Your task to perform on an android device: turn on wifi Image 0: 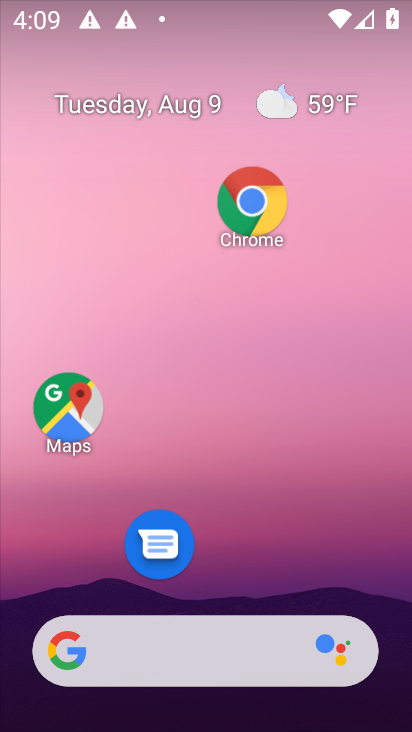
Step 0: drag from (129, 581) to (198, 104)
Your task to perform on an android device: turn on wifi Image 1: 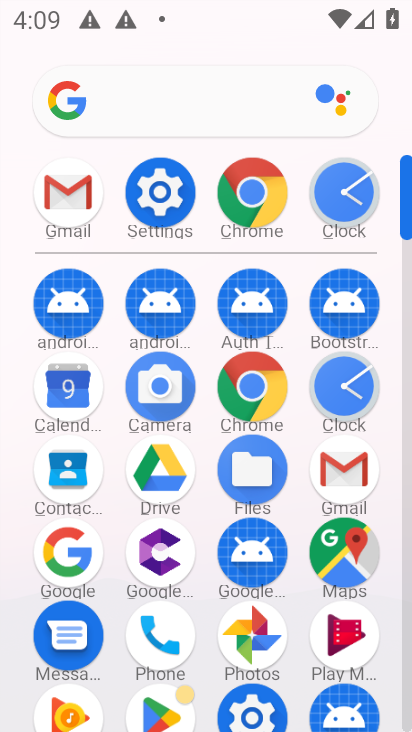
Step 1: click (161, 207)
Your task to perform on an android device: turn on wifi Image 2: 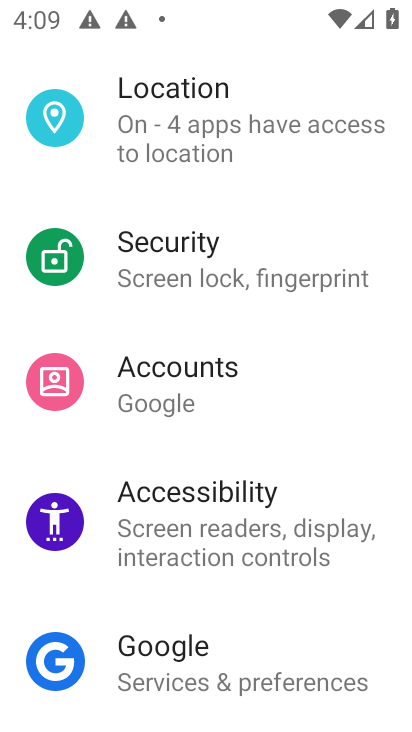
Step 2: drag from (178, 161) to (185, 512)
Your task to perform on an android device: turn on wifi Image 3: 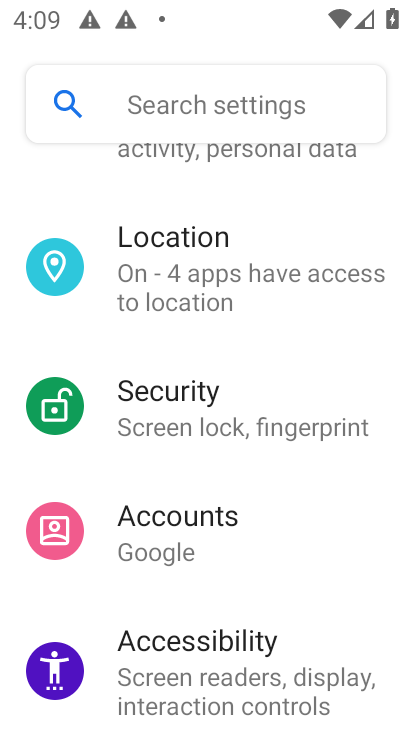
Step 3: drag from (245, 210) to (248, 586)
Your task to perform on an android device: turn on wifi Image 4: 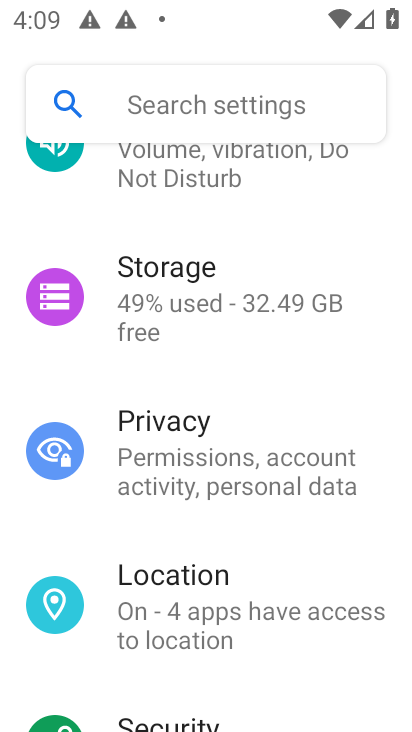
Step 4: drag from (187, 205) to (214, 560)
Your task to perform on an android device: turn on wifi Image 5: 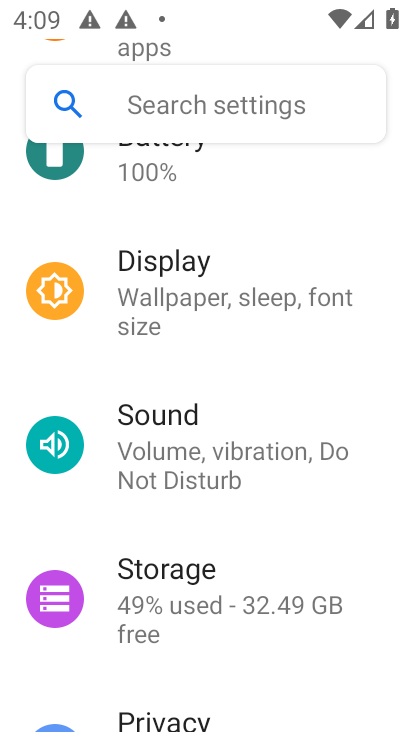
Step 5: drag from (201, 177) to (203, 596)
Your task to perform on an android device: turn on wifi Image 6: 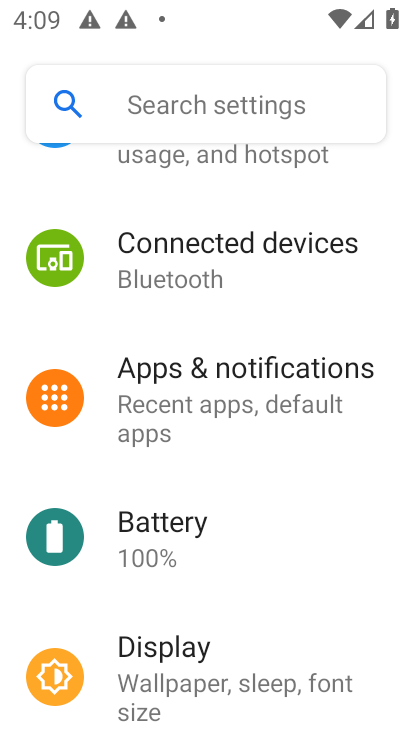
Step 6: drag from (188, 296) to (196, 677)
Your task to perform on an android device: turn on wifi Image 7: 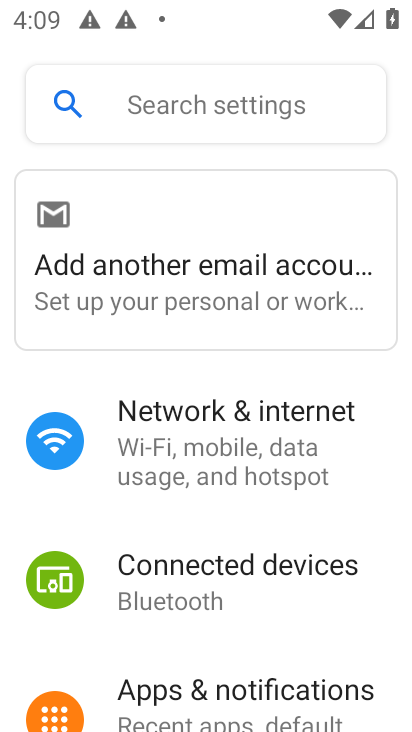
Step 7: click (170, 444)
Your task to perform on an android device: turn on wifi Image 8: 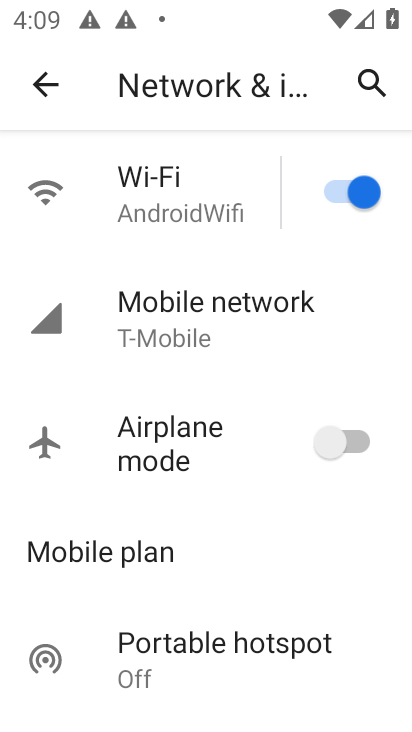
Step 8: task complete